Your task to perform on an android device: Open Maps and search for coffee Image 0: 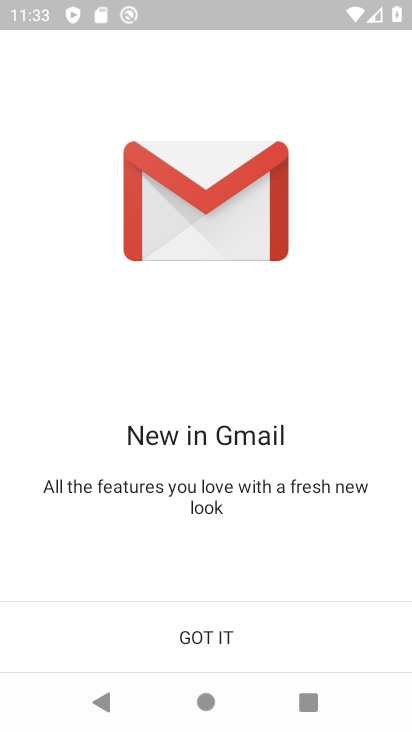
Step 0: click (220, 631)
Your task to perform on an android device: Open Maps and search for coffee Image 1: 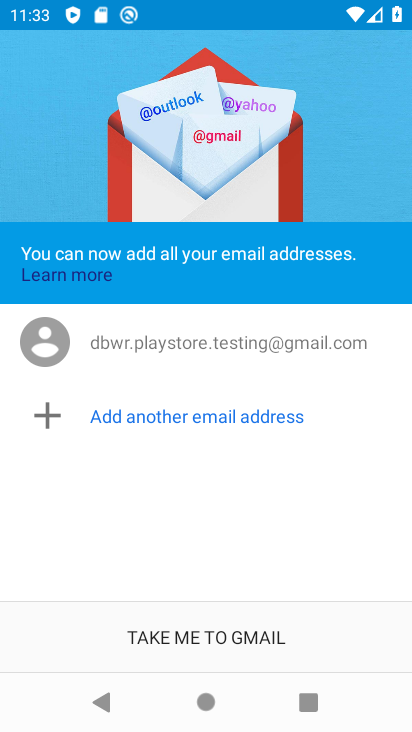
Step 1: click (220, 631)
Your task to perform on an android device: Open Maps and search for coffee Image 2: 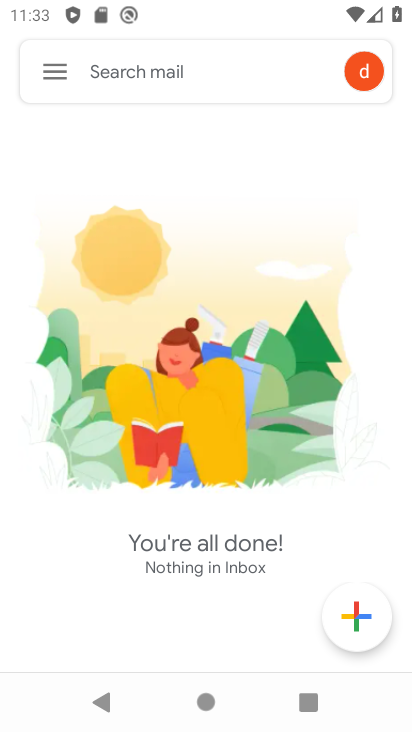
Step 2: press home button
Your task to perform on an android device: Open Maps and search for coffee Image 3: 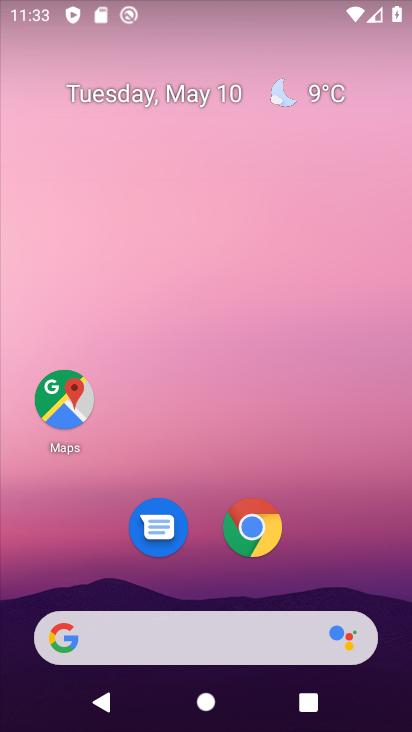
Step 3: drag from (207, 722) to (191, 154)
Your task to perform on an android device: Open Maps and search for coffee Image 4: 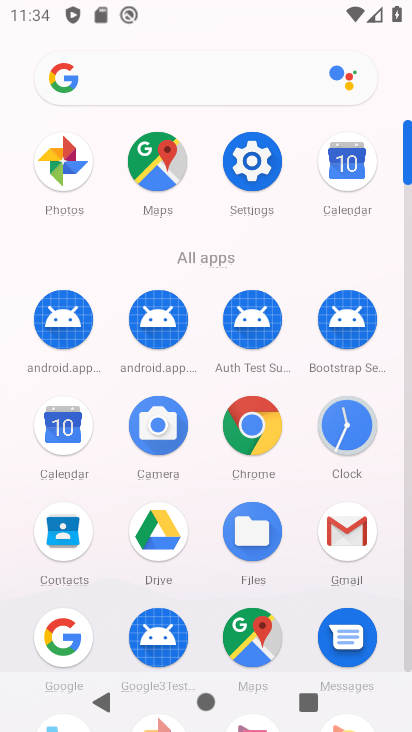
Step 4: click (254, 631)
Your task to perform on an android device: Open Maps and search for coffee Image 5: 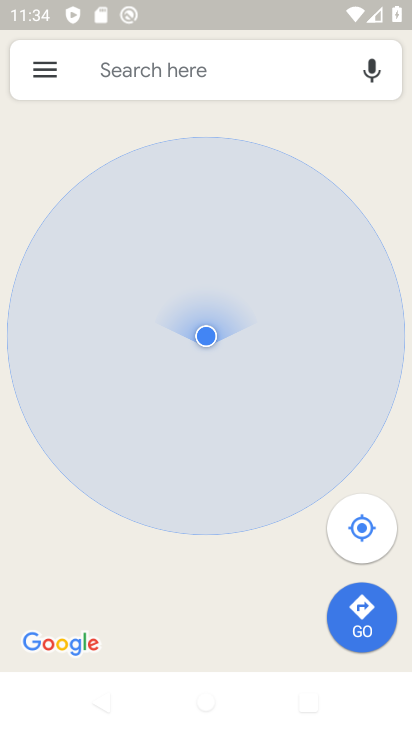
Step 5: click (176, 66)
Your task to perform on an android device: Open Maps and search for coffee Image 6: 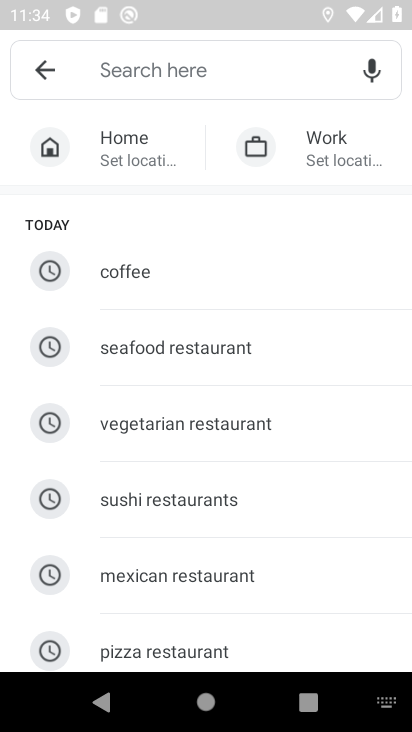
Step 6: type "coffee"
Your task to perform on an android device: Open Maps and search for coffee Image 7: 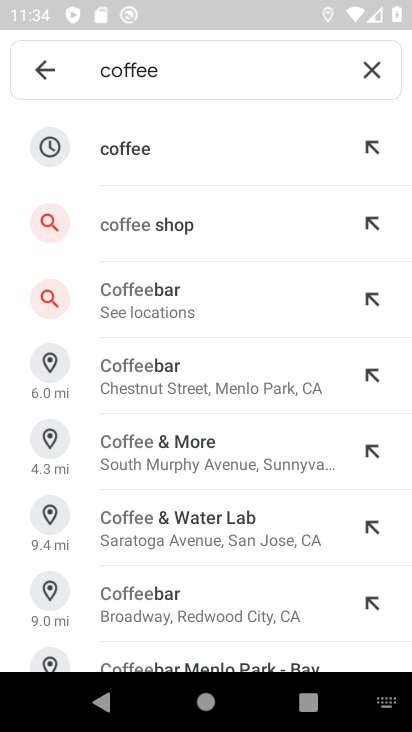
Step 7: click (138, 148)
Your task to perform on an android device: Open Maps and search for coffee Image 8: 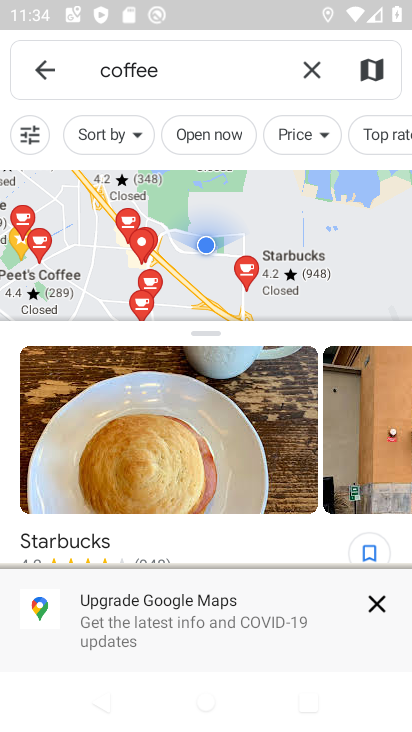
Step 8: task complete